Your task to perform on an android device: Show me recent news Image 0: 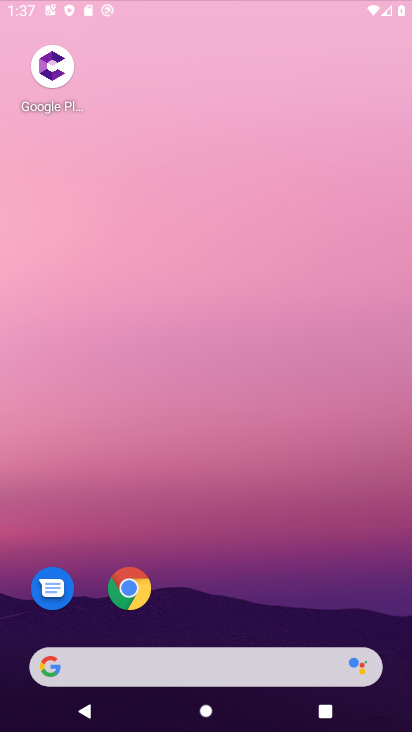
Step 0: click (372, 80)
Your task to perform on an android device: Show me recent news Image 1: 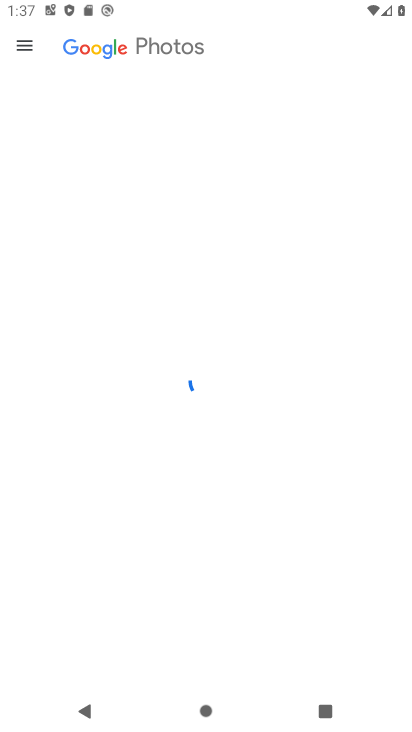
Step 1: press home button
Your task to perform on an android device: Show me recent news Image 2: 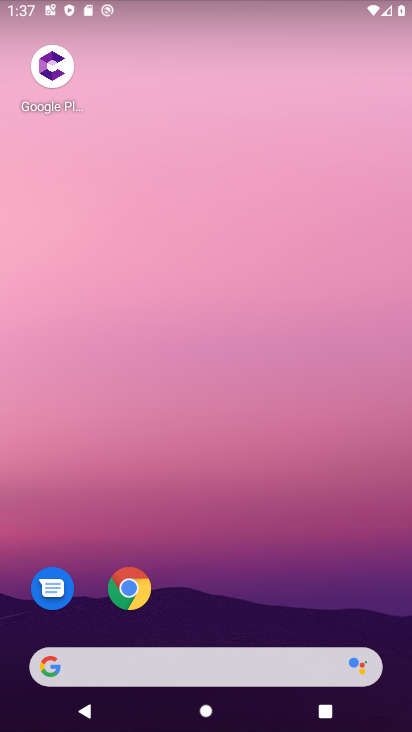
Step 2: drag from (203, 572) to (221, 200)
Your task to perform on an android device: Show me recent news Image 3: 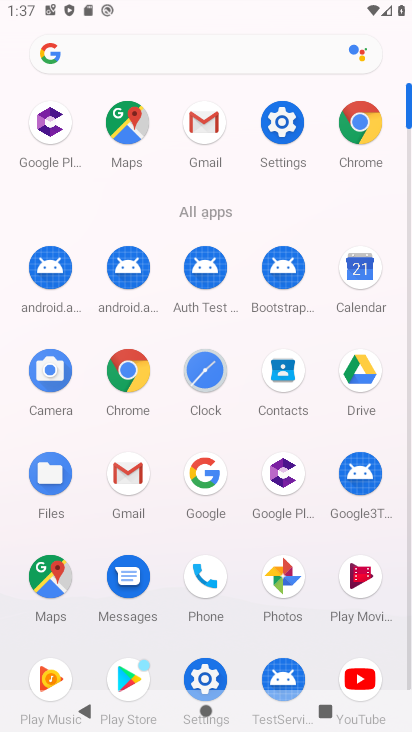
Step 3: click (207, 464)
Your task to perform on an android device: Show me recent news Image 4: 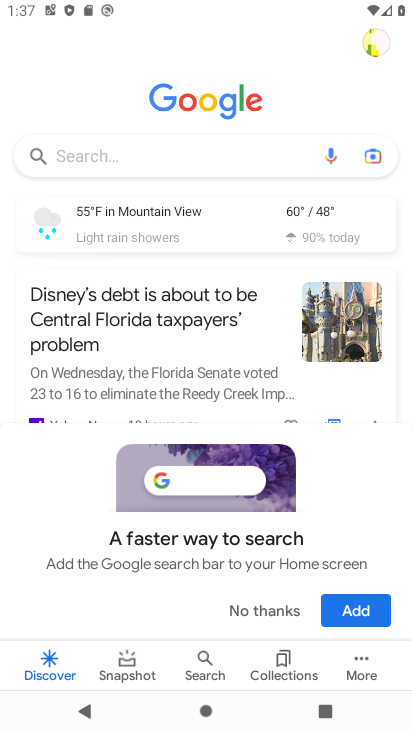
Step 4: click (160, 163)
Your task to perform on an android device: Show me recent news Image 5: 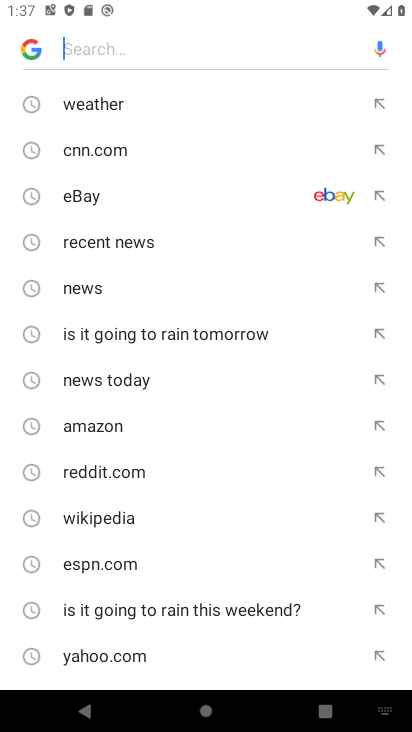
Step 5: type "news"
Your task to perform on an android device: Show me recent news Image 6: 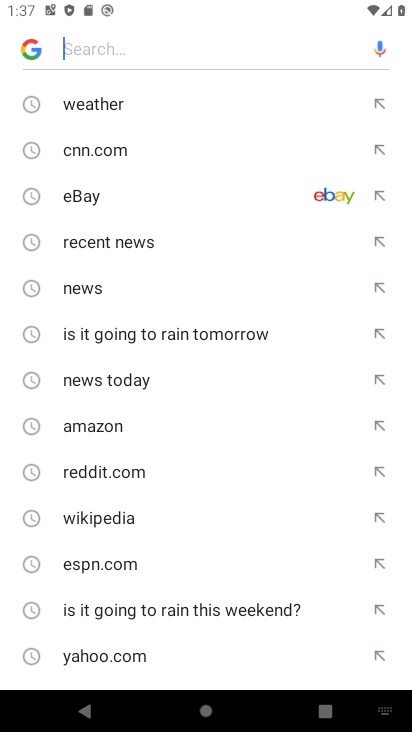
Step 6: click (212, 288)
Your task to perform on an android device: Show me recent news Image 7: 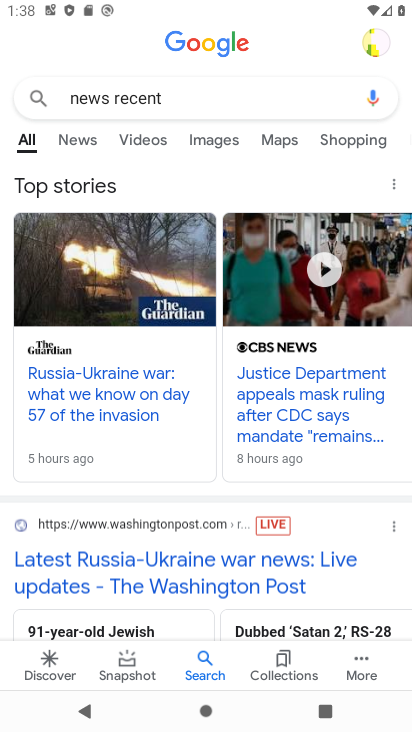
Step 7: click (79, 141)
Your task to perform on an android device: Show me recent news Image 8: 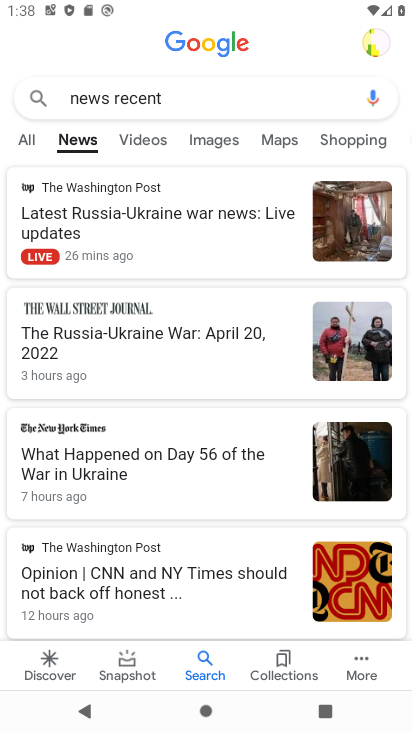
Step 8: task complete